Your task to perform on an android device: open a new tab in the chrome app Image 0: 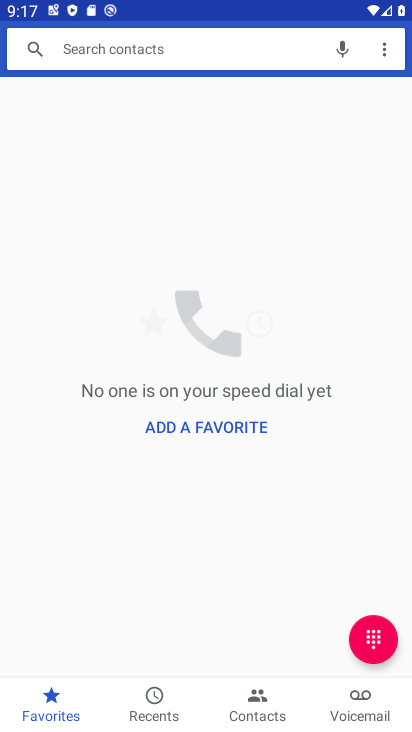
Step 0: press home button
Your task to perform on an android device: open a new tab in the chrome app Image 1: 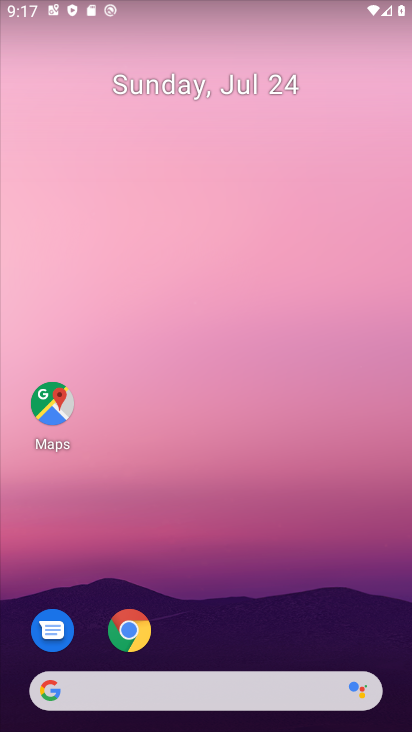
Step 1: click (139, 632)
Your task to perform on an android device: open a new tab in the chrome app Image 2: 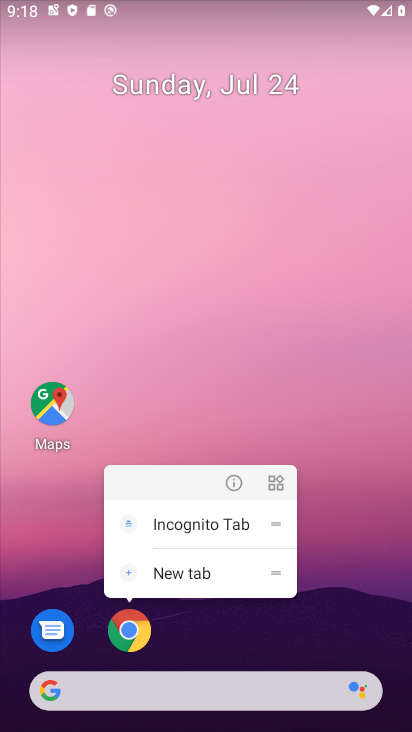
Step 2: click (127, 635)
Your task to perform on an android device: open a new tab in the chrome app Image 3: 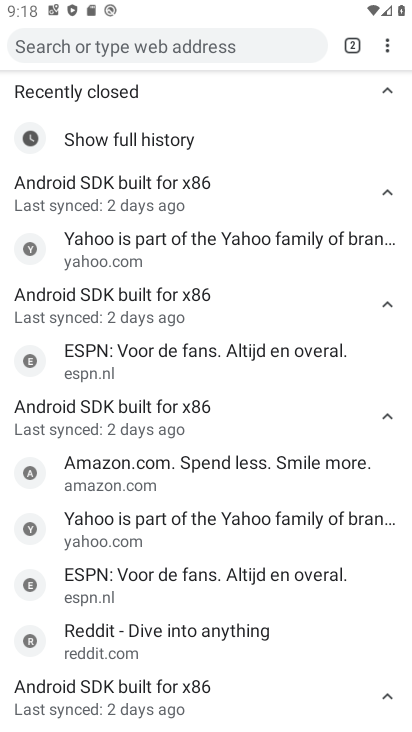
Step 3: click (353, 51)
Your task to perform on an android device: open a new tab in the chrome app Image 4: 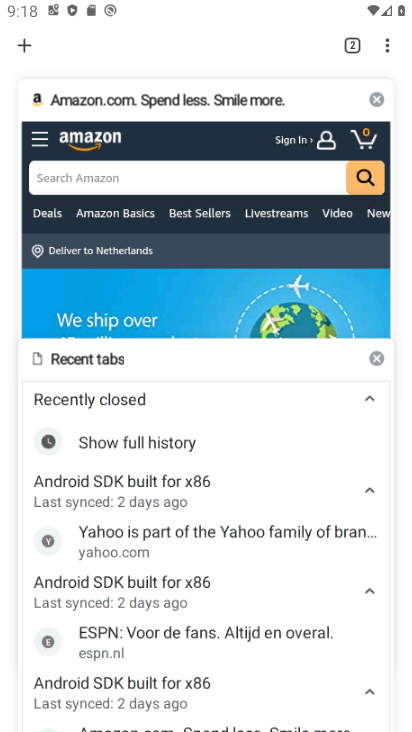
Step 4: click (22, 43)
Your task to perform on an android device: open a new tab in the chrome app Image 5: 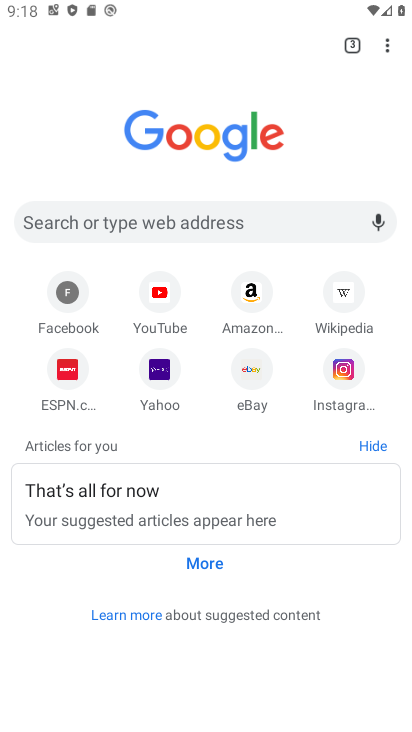
Step 5: task complete